Your task to perform on an android device: Open Yahoo.com Image 0: 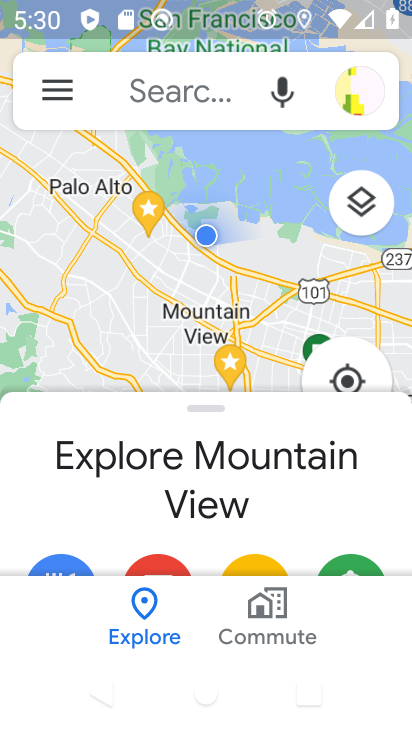
Step 0: press home button
Your task to perform on an android device: Open Yahoo.com Image 1: 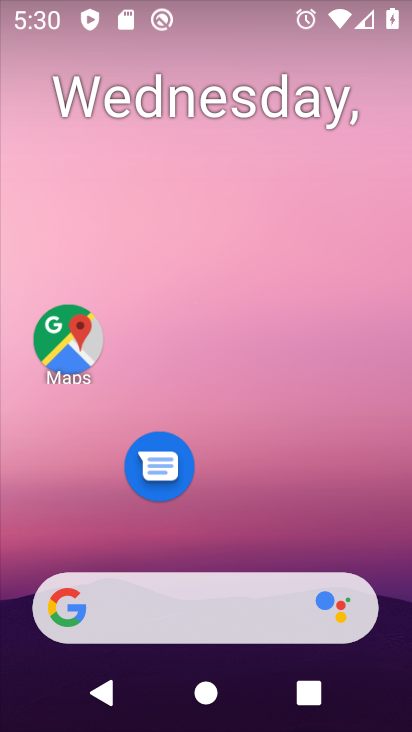
Step 1: drag from (299, 529) to (289, 65)
Your task to perform on an android device: Open Yahoo.com Image 2: 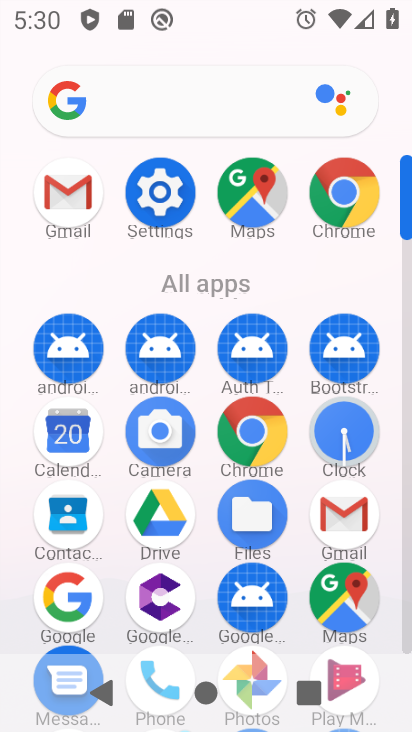
Step 2: click (342, 190)
Your task to perform on an android device: Open Yahoo.com Image 3: 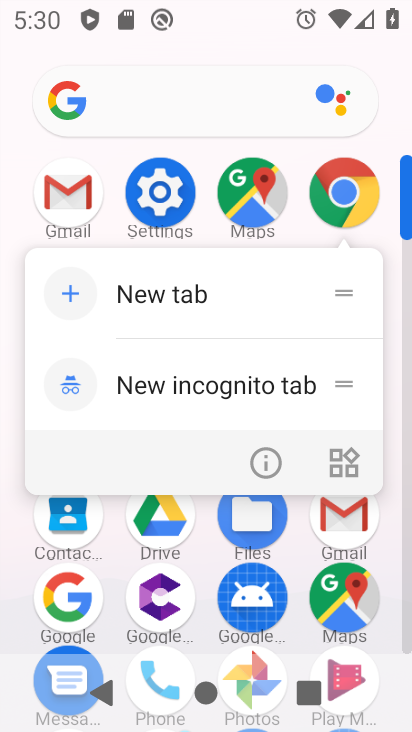
Step 3: click (300, 170)
Your task to perform on an android device: Open Yahoo.com Image 4: 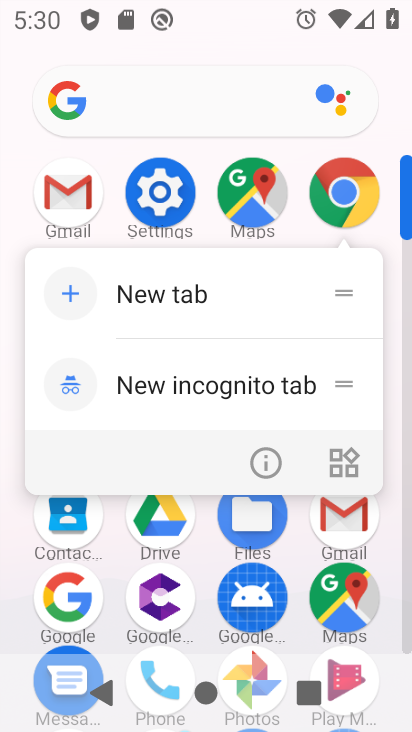
Step 4: click (22, 534)
Your task to perform on an android device: Open Yahoo.com Image 5: 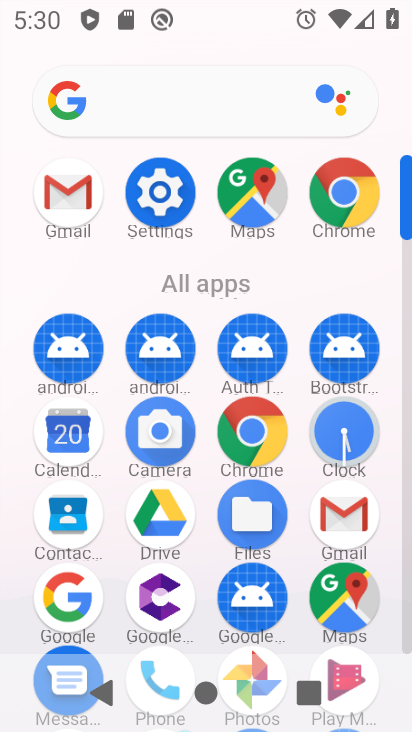
Step 5: click (249, 421)
Your task to perform on an android device: Open Yahoo.com Image 6: 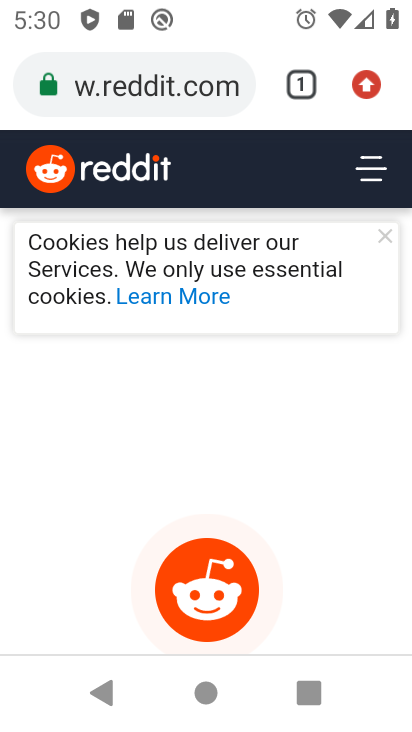
Step 6: click (224, 84)
Your task to perform on an android device: Open Yahoo.com Image 7: 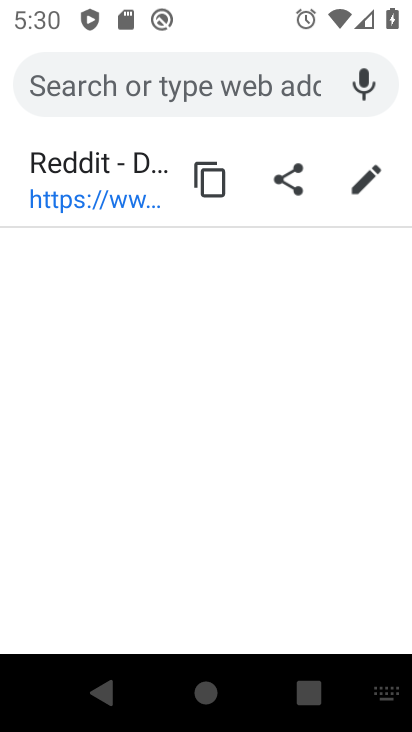
Step 7: click (141, 95)
Your task to perform on an android device: Open Yahoo.com Image 8: 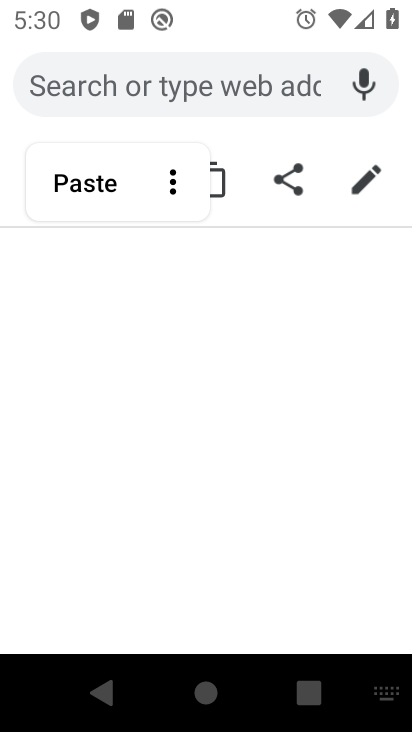
Step 8: type "Yahoo.com"
Your task to perform on an android device: Open Yahoo.com Image 9: 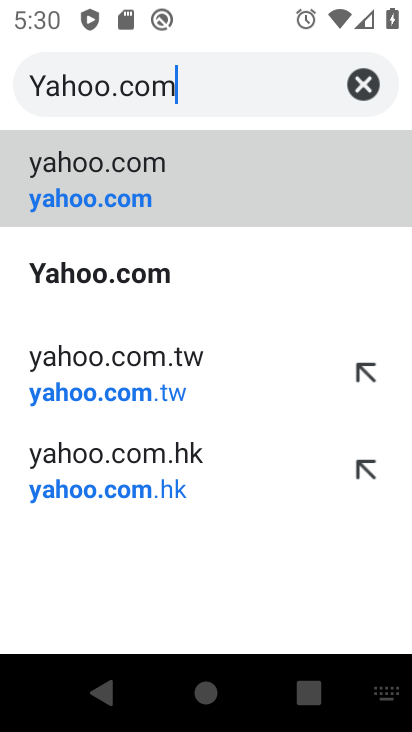
Step 9: click (97, 190)
Your task to perform on an android device: Open Yahoo.com Image 10: 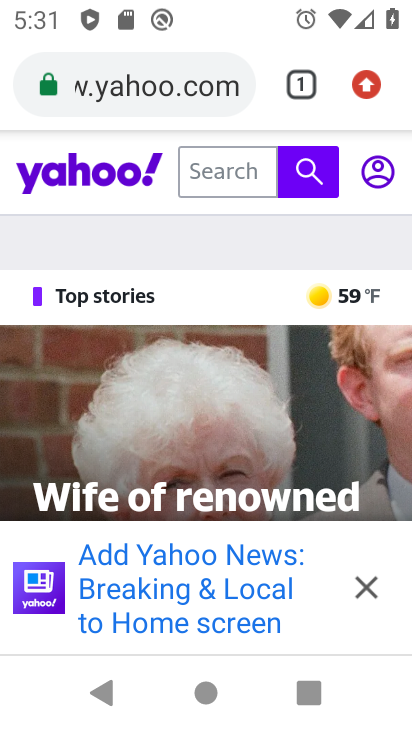
Step 10: task complete